Your task to perform on an android device: Open Google Maps Image 0: 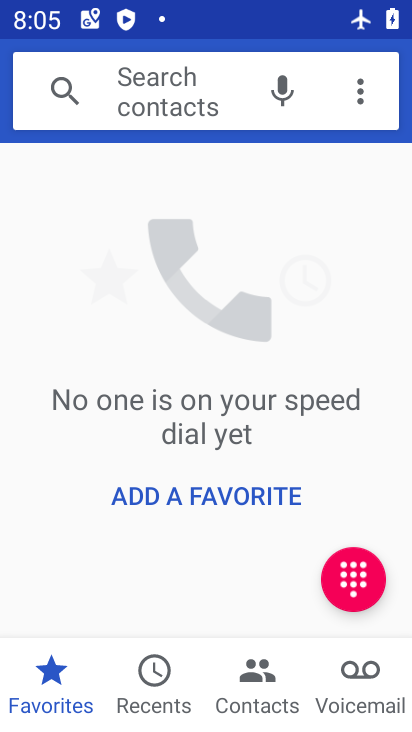
Step 0: press home button
Your task to perform on an android device: Open Google Maps Image 1: 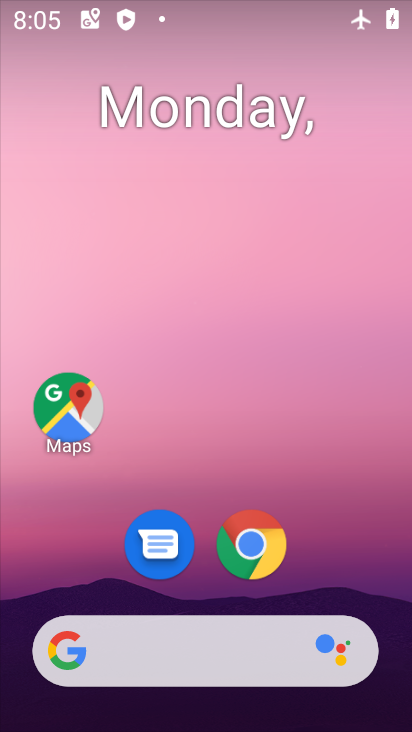
Step 1: click (78, 413)
Your task to perform on an android device: Open Google Maps Image 2: 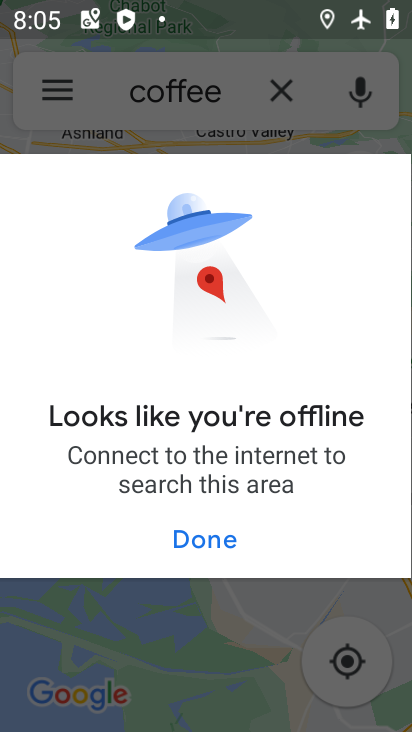
Step 2: click (181, 539)
Your task to perform on an android device: Open Google Maps Image 3: 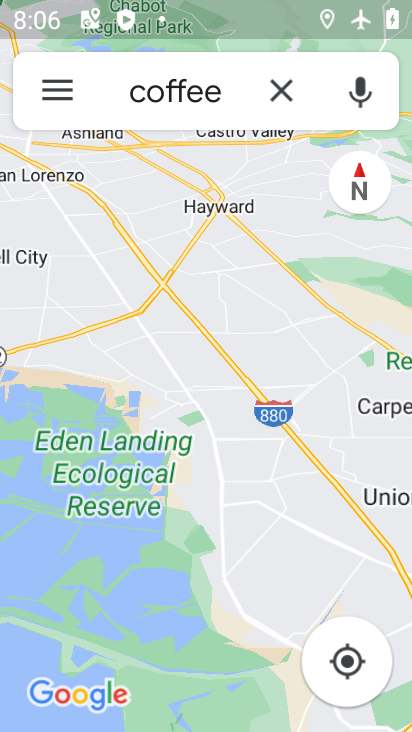
Step 3: click (280, 93)
Your task to perform on an android device: Open Google Maps Image 4: 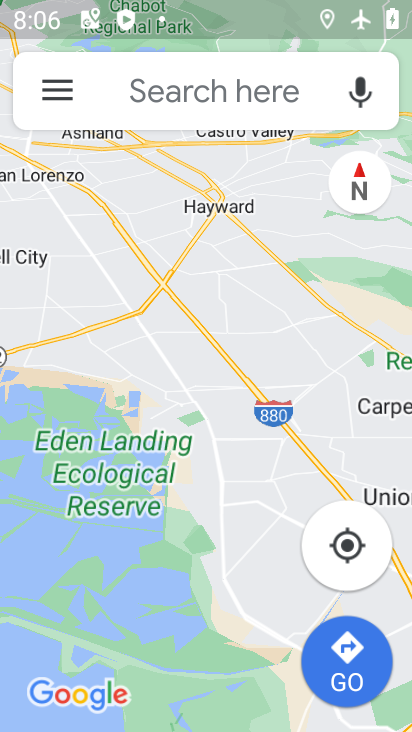
Step 4: task complete